Your task to perform on an android device: turn off smart reply in the gmail app Image 0: 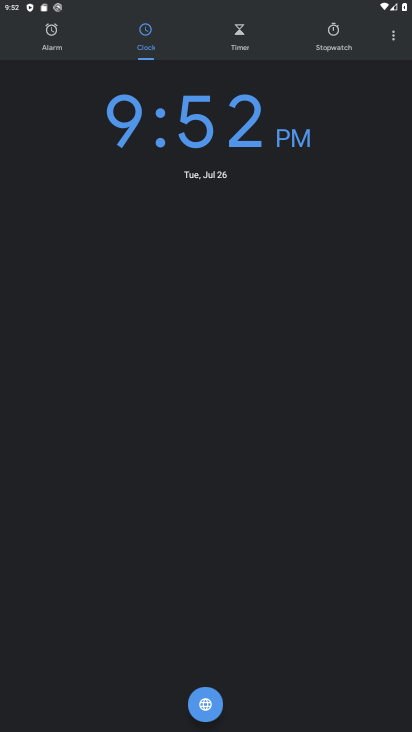
Step 0: press home button
Your task to perform on an android device: turn off smart reply in the gmail app Image 1: 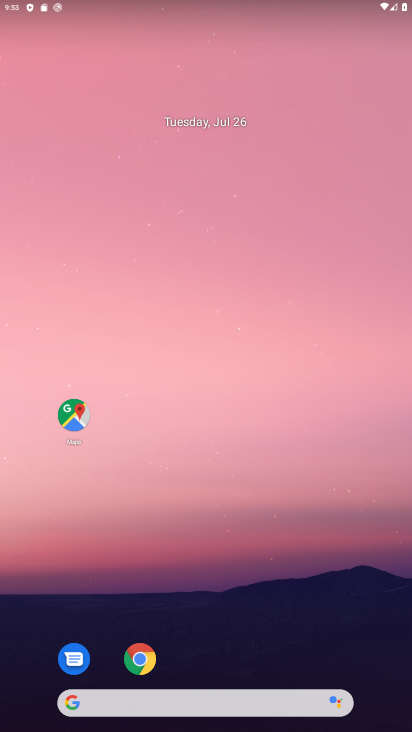
Step 1: drag from (387, 691) to (362, 93)
Your task to perform on an android device: turn off smart reply in the gmail app Image 2: 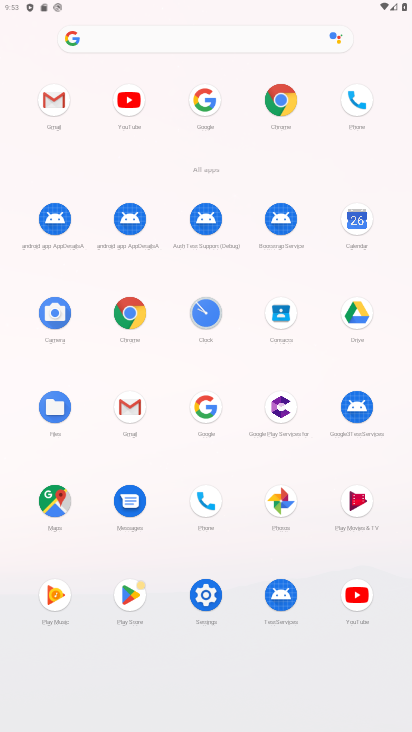
Step 2: click (122, 406)
Your task to perform on an android device: turn off smart reply in the gmail app Image 3: 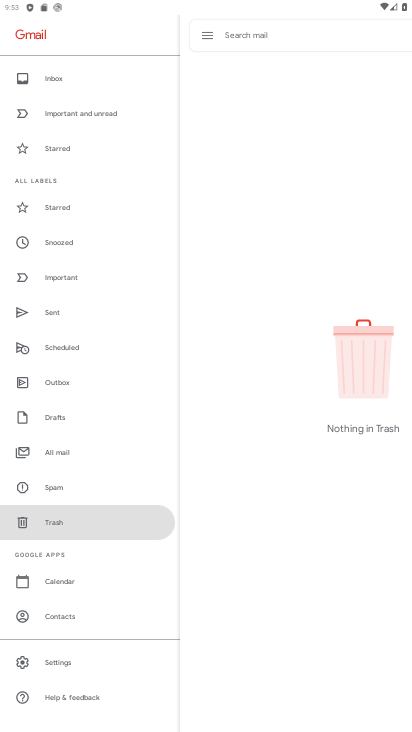
Step 3: click (55, 657)
Your task to perform on an android device: turn off smart reply in the gmail app Image 4: 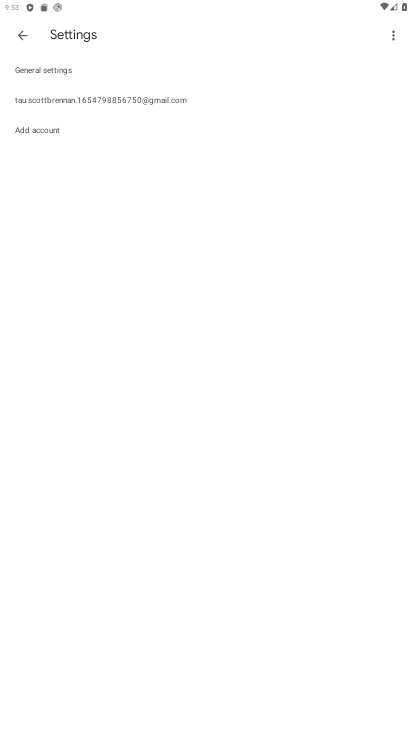
Step 4: click (132, 104)
Your task to perform on an android device: turn off smart reply in the gmail app Image 5: 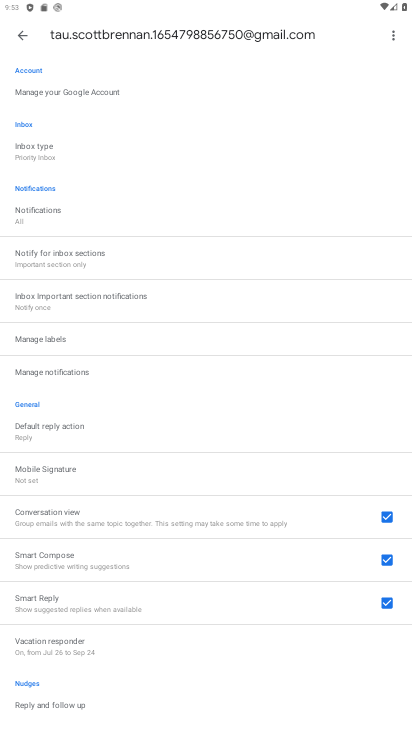
Step 5: click (83, 598)
Your task to perform on an android device: turn off smart reply in the gmail app Image 6: 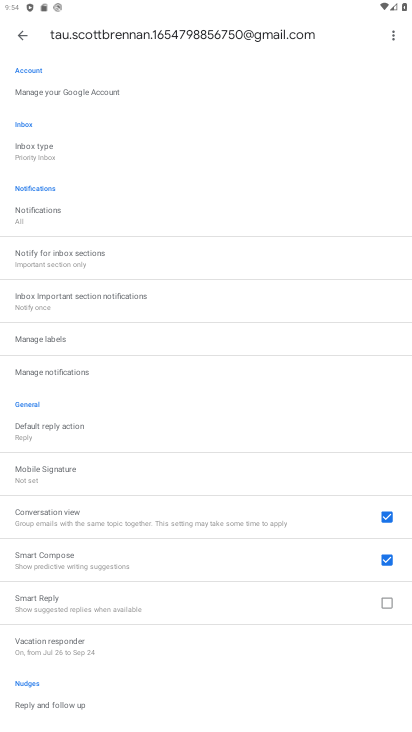
Step 6: task complete